Your task to perform on an android device: Open Chrome and go to the settings page Image 0: 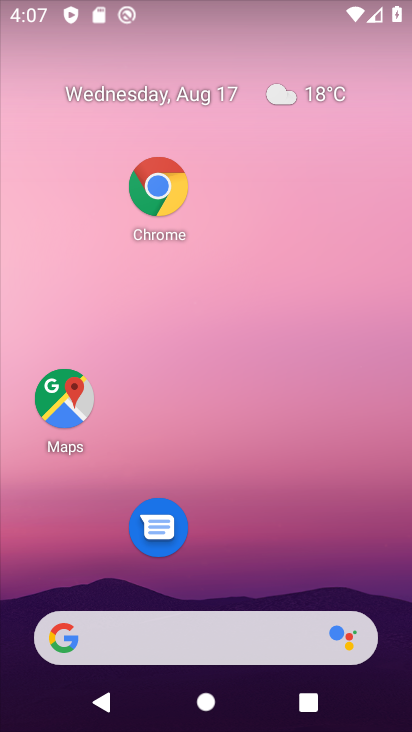
Step 0: click (160, 186)
Your task to perform on an android device: Open Chrome and go to the settings page Image 1: 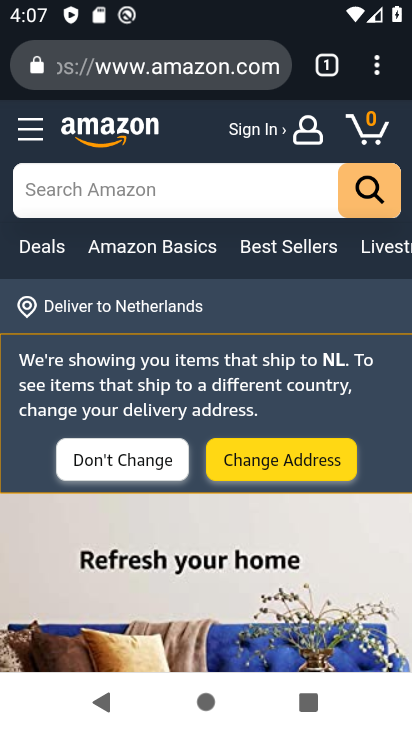
Step 1: click (384, 58)
Your task to perform on an android device: Open Chrome and go to the settings page Image 2: 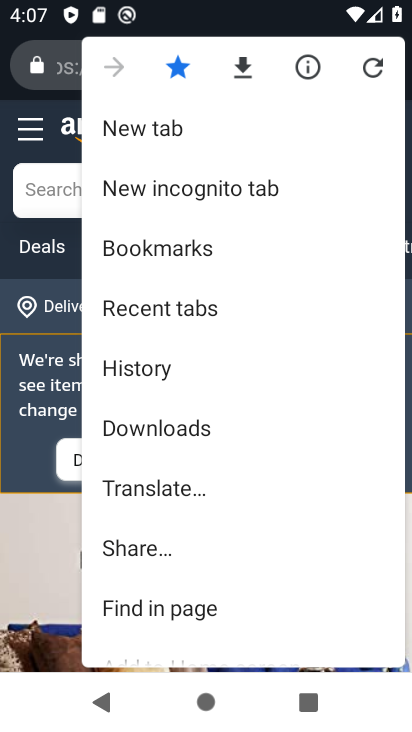
Step 2: drag from (144, 633) to (159, 580)
Your task to perform on an android device: Open Chrome and go to the settings page Image 3: 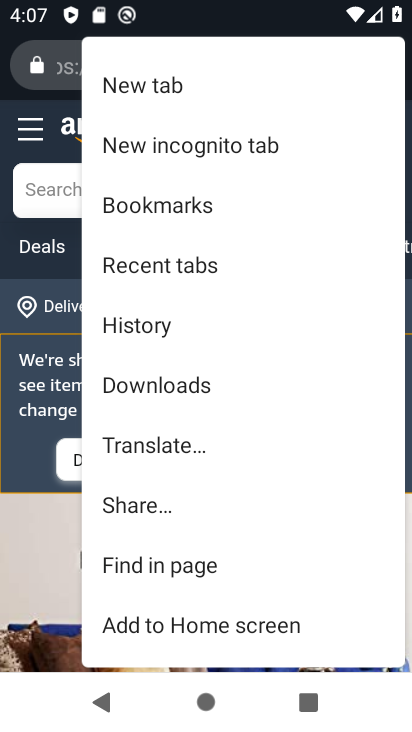
Step 3: drag from (229, 590) to (212, 200)
Your task to perform on an android device: Open Chrome and go to the settings page Image 4: 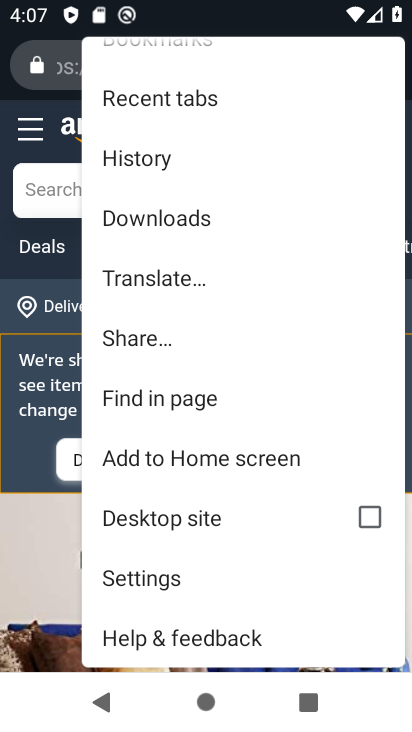
Step 4: click (206, 589)
Your task to perform on an android device: Open Chrome and go to the settings page Image 5: 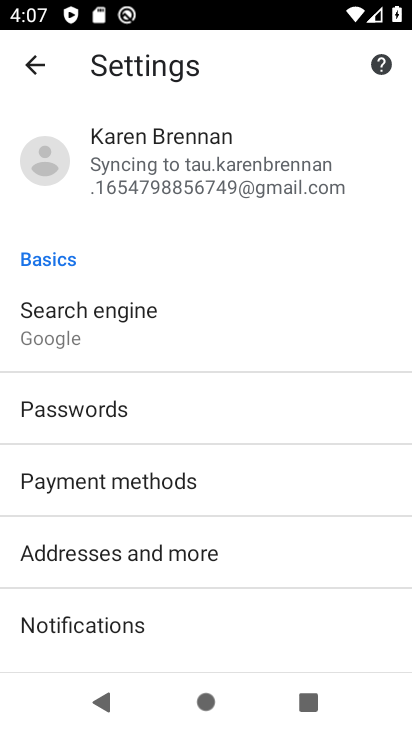
Step 5: task complete